Your task to perform on an android device: toggle improve location accuracy Image 0: 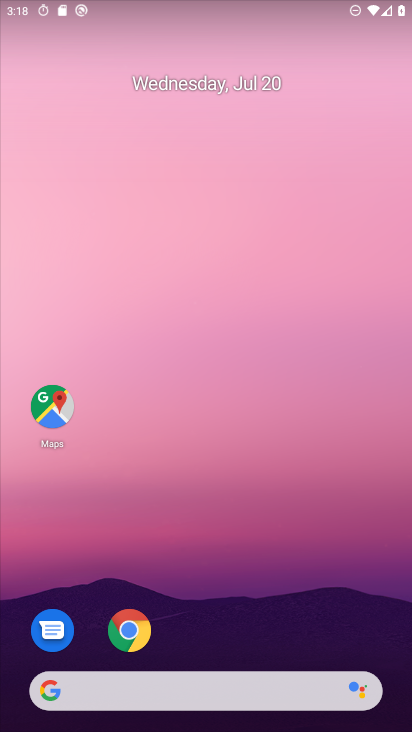
Step 0: drag from (301, 540) to (263, 166)
Your task to perform on an android device: toggle improve location accuracy Image 1: 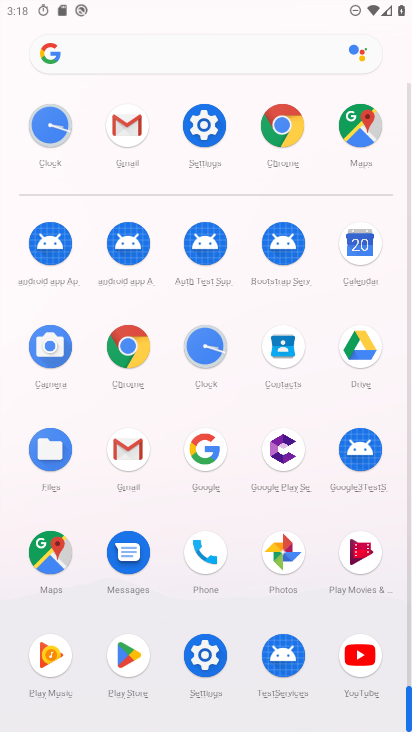
Step 1: click (204, 117)
Your task to perform on an android device: toggle improve location accuracy Image 2: 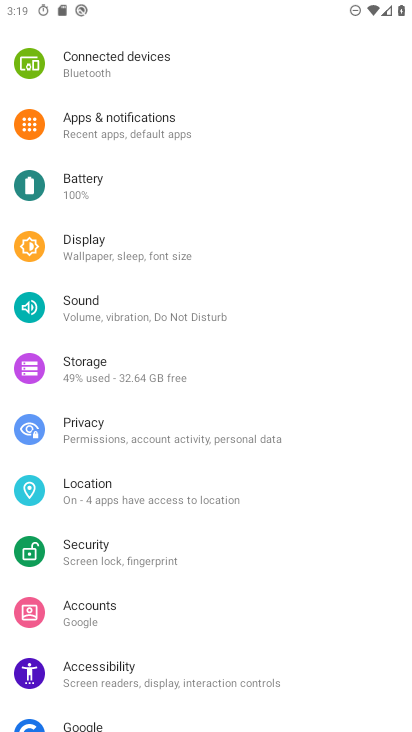
Step 2: click (85, 499)
Your task to perform on an android device: toggle improve location accuracy Image 3: 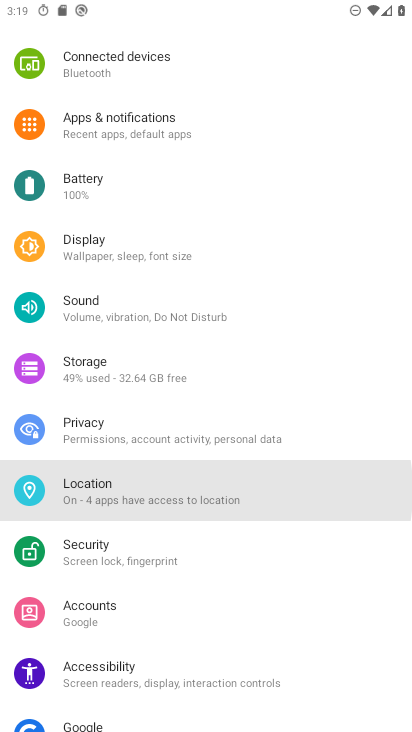
Step 3: click (89, 498)
Your task to perform on an android device: toggle improve location accuracy Image 4: 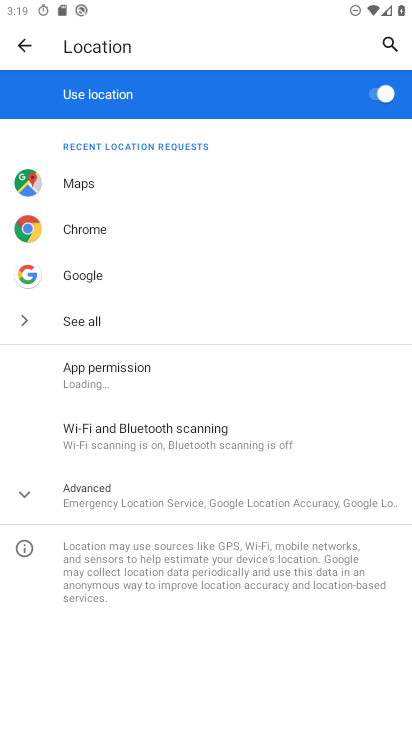
Step 4: click (93, 488)
Your task to perform on an android device: toggle improve location accuracy Image 5: 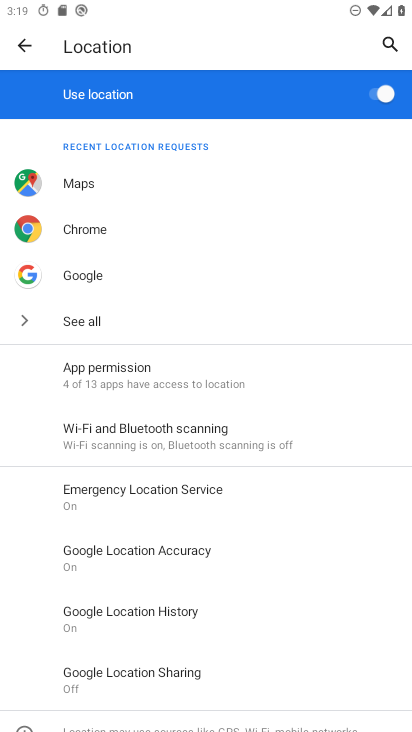
Step 5: click (139, 546)
Your task to perform on an android device: toggle improve location accuracy Image 6: 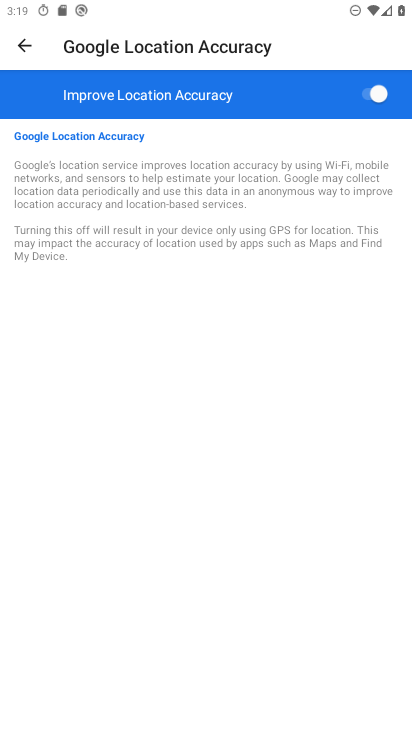
Step 6: task complete